Your task to perform on an android device: check out phone information Image 0: 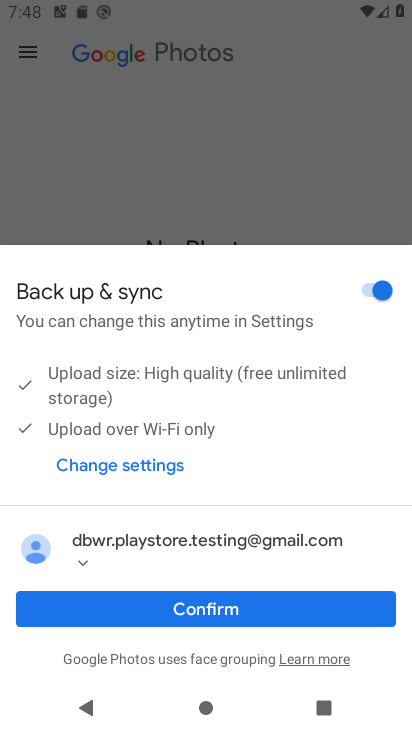
Step 0: press home button
Your task to perform on an android device: check out phone information Image 1: 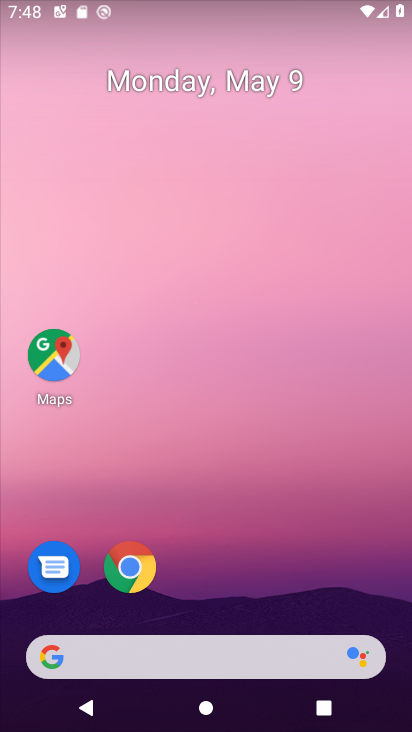
Step 1: click (150, 62)
Your task to perform on an android device: check out phone information Image 2: 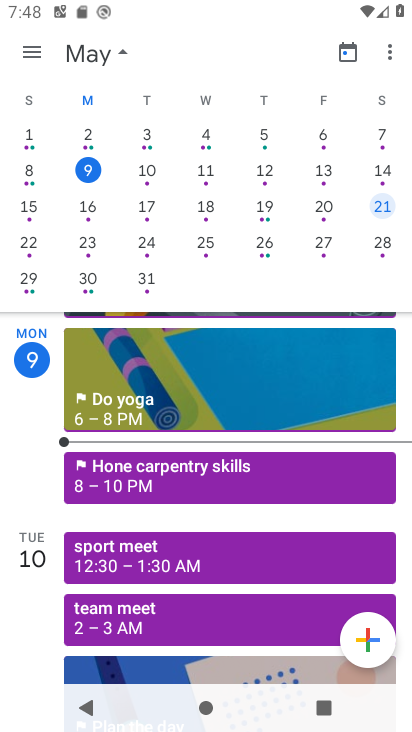
Step 2: press home button
Your task to perform on an android device: check out phone information Image 3: 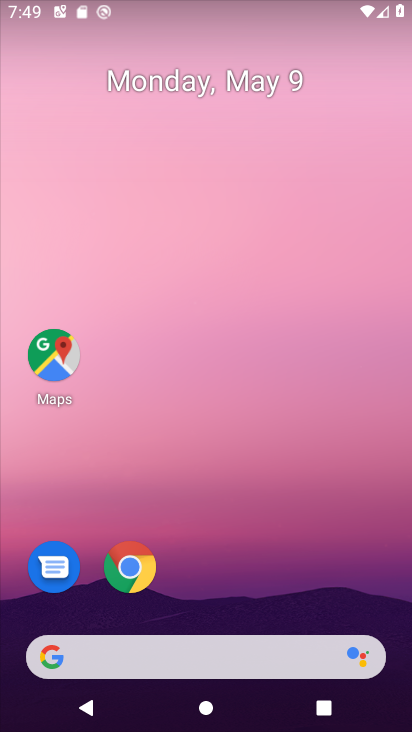
Step 3: drag from (308, 559) to (207, 0)
Your task to perform on an android device: check out phone information Image 4: 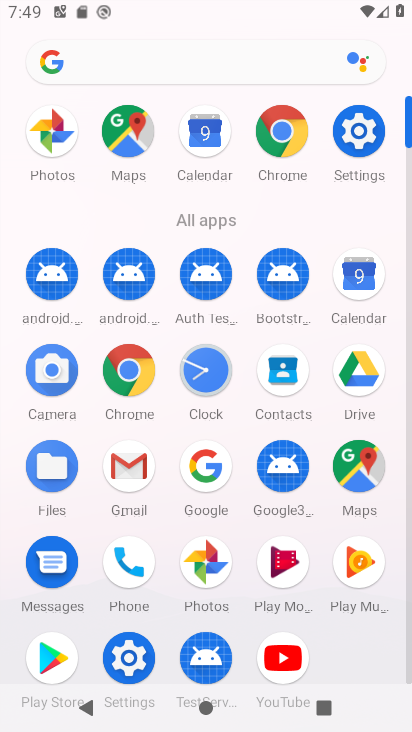
Step 4: click (352, 129)
Your task to perform on an android device: check out phone information Image 5: 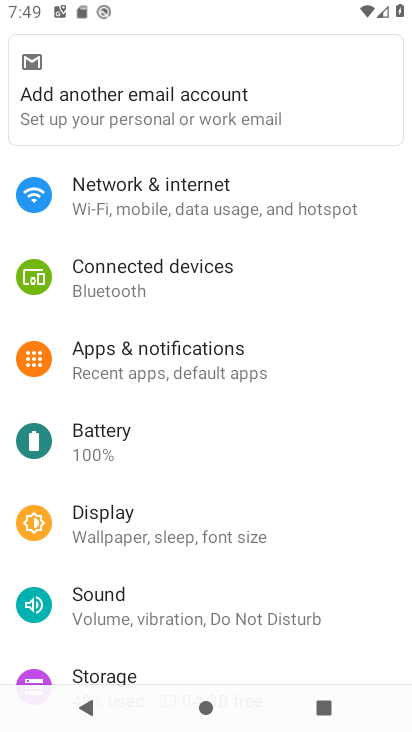
Step 5: drag from (174, 569) to (159, 319)
Your task to perform on an android device: check out phone information Image 6: 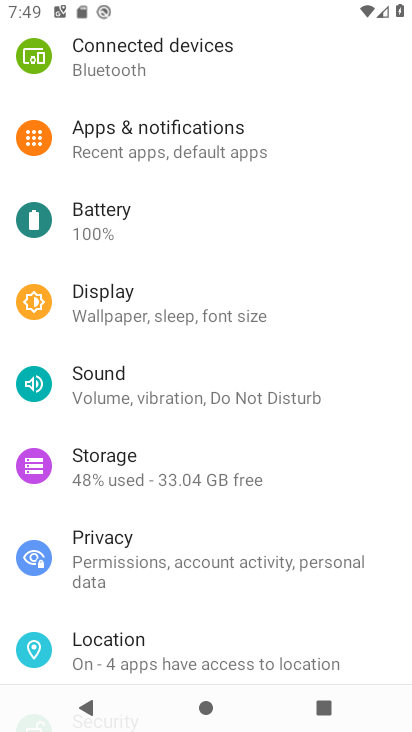
Step 6: drag from (130, 494) to (91, 250)
Your task to perform on an android device: check out phone information Image 7: 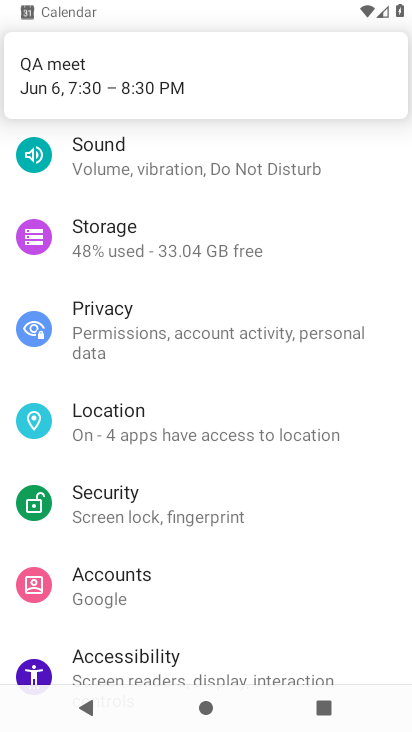
Step 7: drag from (133, 501) to (117, 312)
Your task to perform on an android device: check out phone information Image 8: 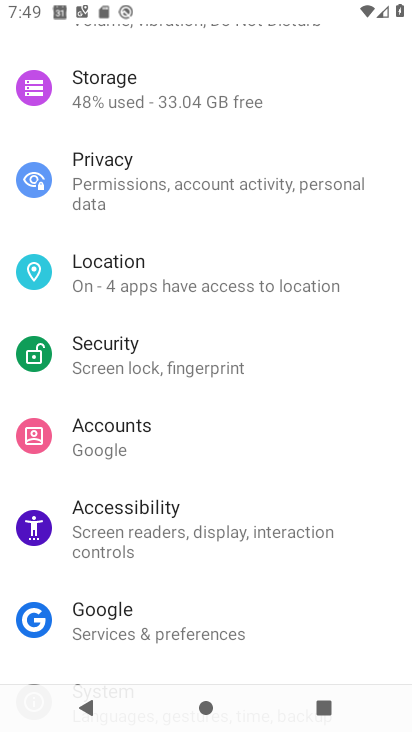
Step 8: drag from (166, 520) to (181, 296)
Your task to perform on an android device: check out phone information Image 9: 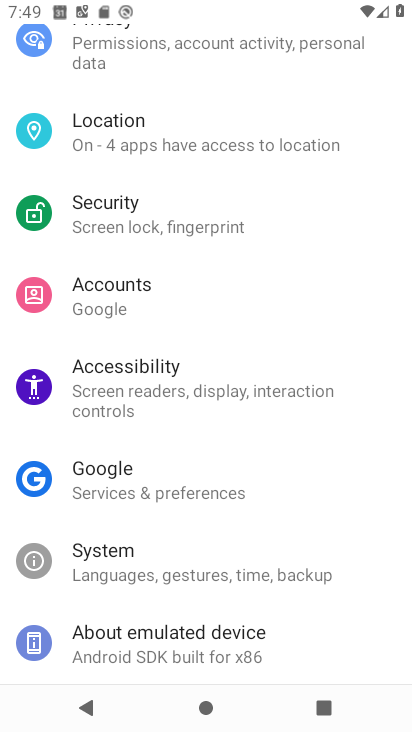
Step 9: click (228, 633)
Your task to perform on an android device: check out phone information Image 10: 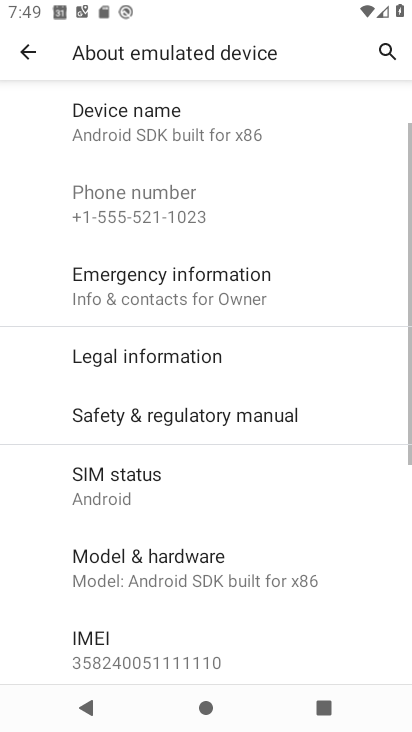
Step 10: task complete